Your task to perform on an android device: Set the phone to "Do not disturb". Image 0: 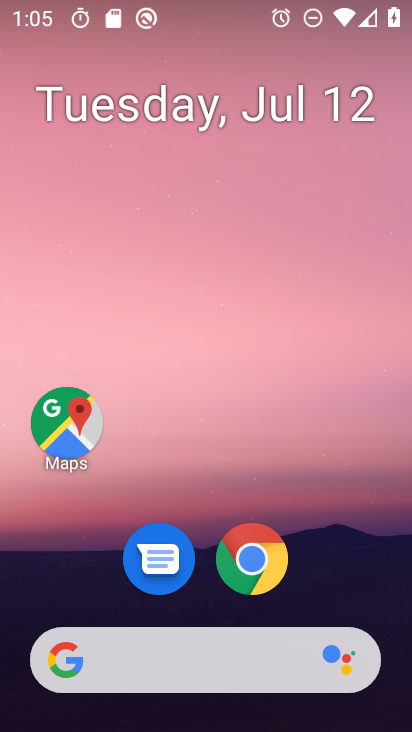
Step 0: drag from (136, 11) to (210, 592)
Your task to perform on an android device: Set the phone to "Do not disturb". Image 1: 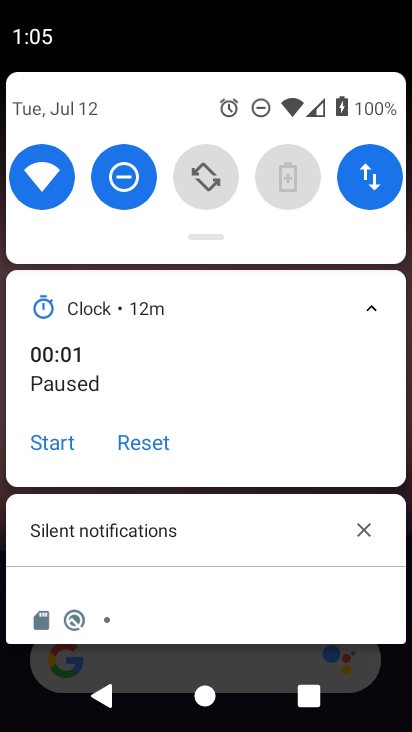
Step 1: task complete